Your task to perform on an android device: Go to display settings Image 0: 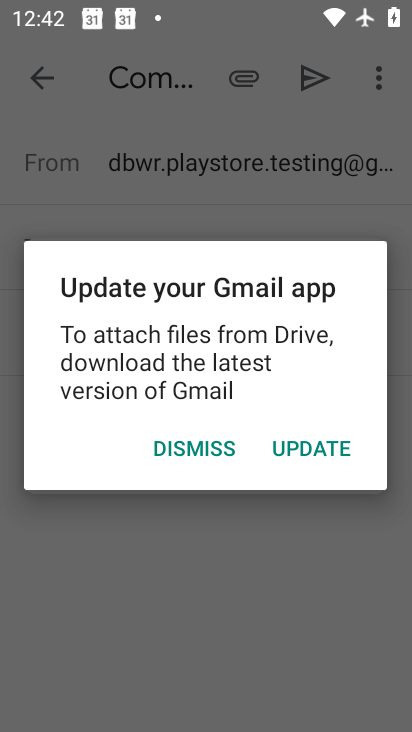
Step 0: press home button
Your task to perform on an android device: Go to display settings Image 1: 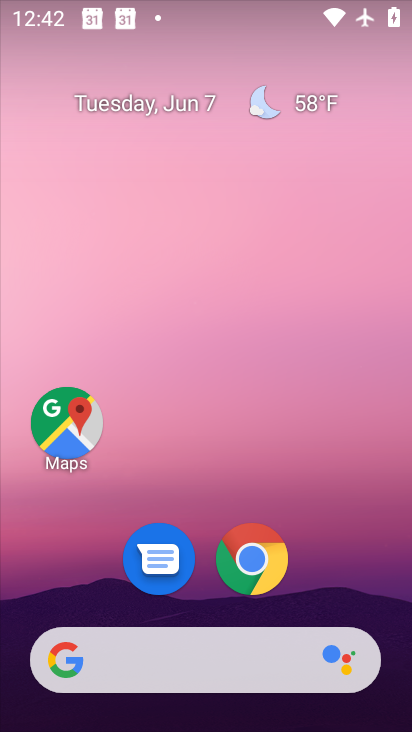
Step 1: drag from (398, 637) to (343, 67)
Your task to perform on an android device: Go to display settings Image 2: 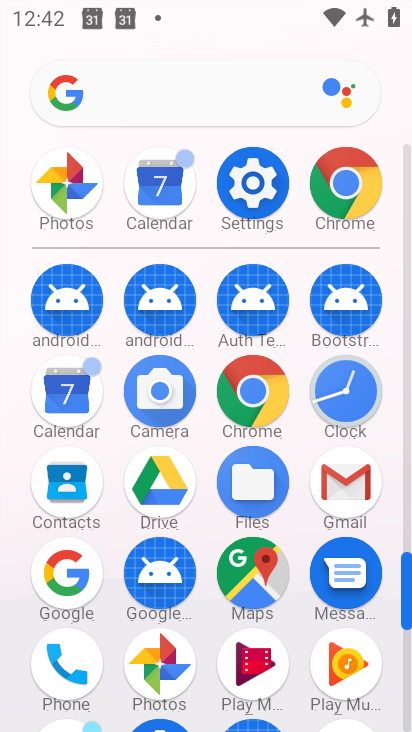
Step 2: click (408, 722)
Your task to perform on an android device: Go to display settings Image 3: 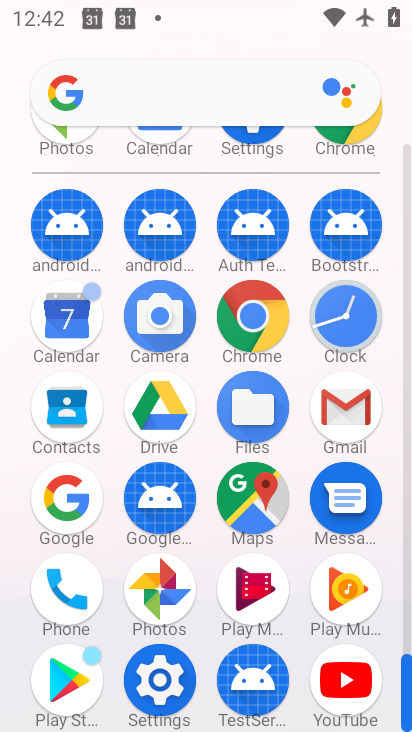
Step 3: click (161, 681)
Your task to perform on an android device: Go to display settings Image 4: 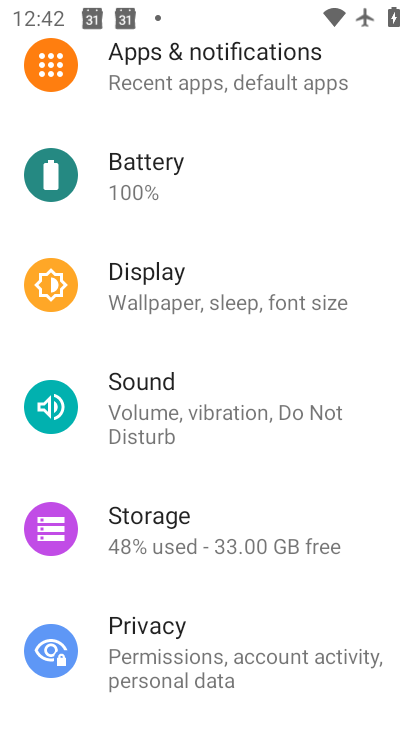
Step 4: click (146, 280)
Your task to perform on an android device: Go to display settings Image 5: 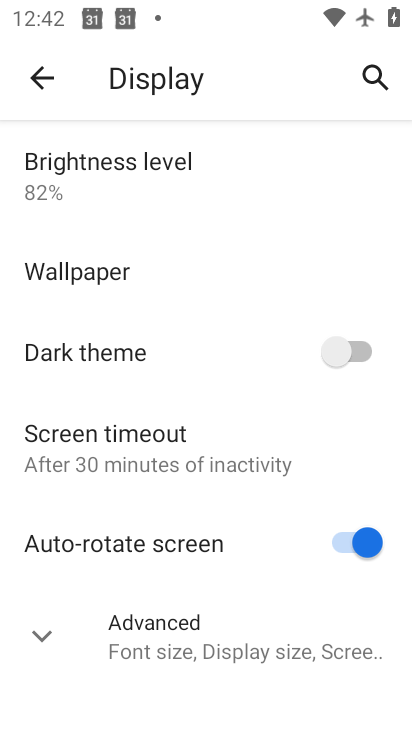
Step 5: click (39, 637)
Your task to perform on an android device: Go to display settings Image 6: 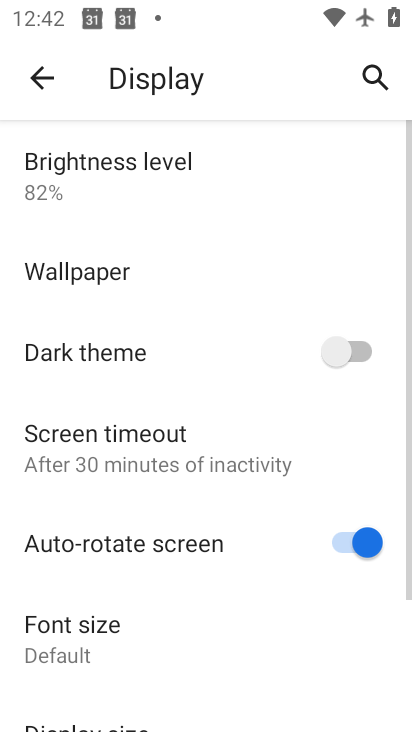
Step 6: task complete